Your task to perform on an android device: Open Chrome and go to the settings page Image 0: 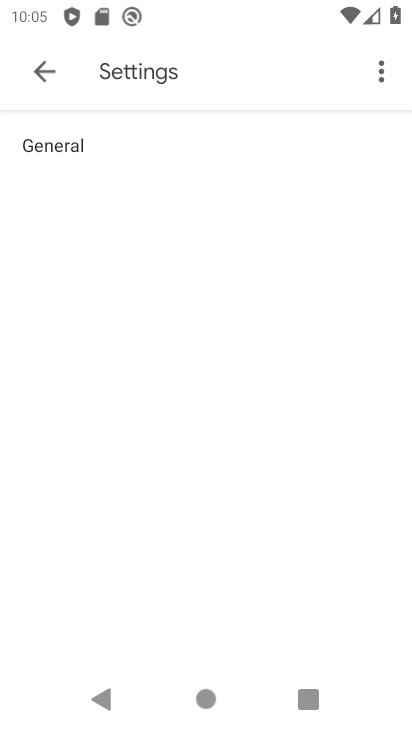
Step 0: press back button
Your task to perform on an android device: Open Chrome and go to the settings page Image 1: 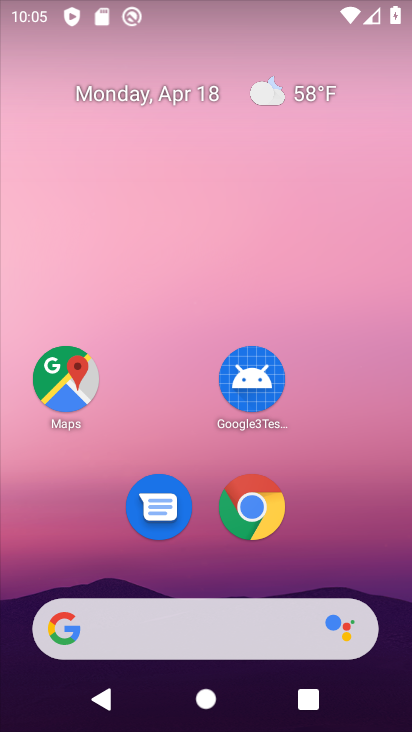
Step 1: click (261, 511)
Your task to perform on an android device: Open Chrome and go to the settings page Image 2: 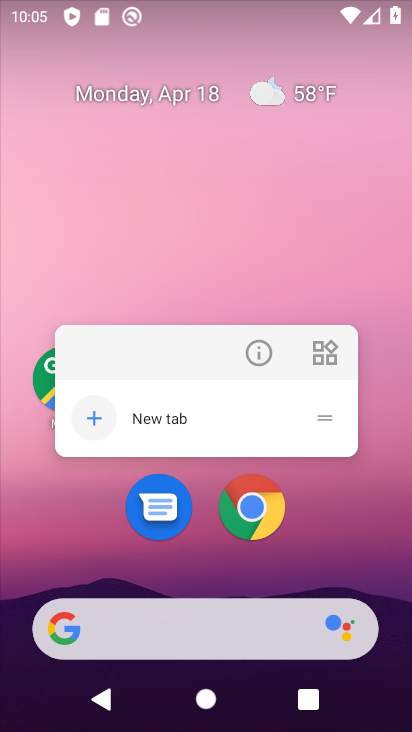
Step 2: click (267, 519)
Your task to perform on an android device: Open Chrome and go to the settings page Image 3: 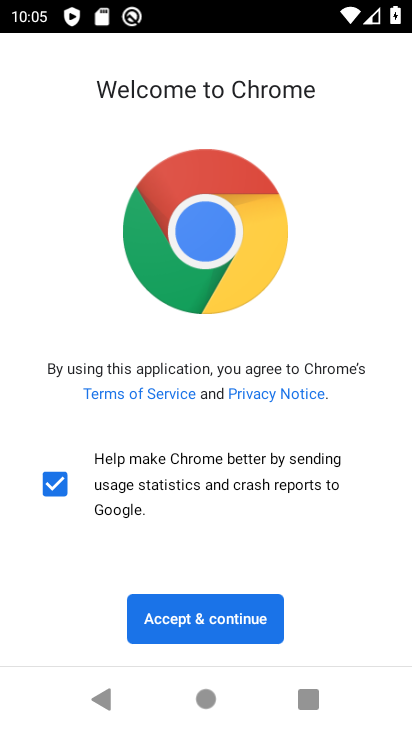
Step 3: click (208, 635)
Your task to perform on an android device: Open Chrome and go to the settings page Image 4: 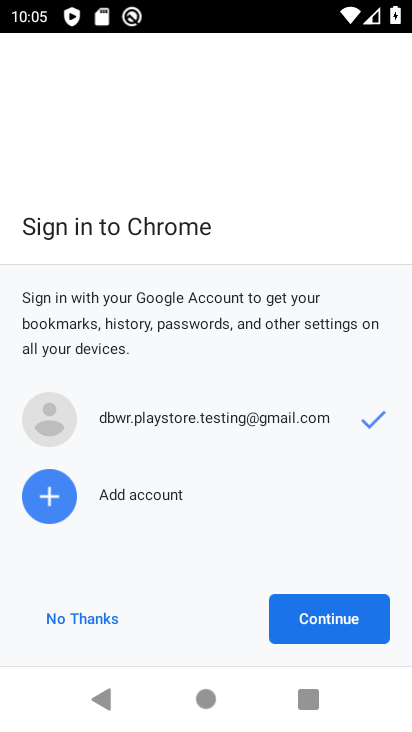
Step 4: click (316, 620)
Your task to perform on an android device: Open Chrome and go to the settings page Image 5: 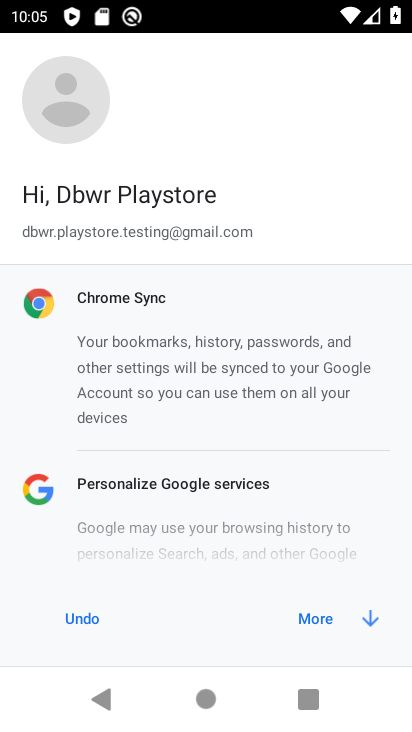
Step 5: click (326, 626)
Your task to perform on an android device: Open Chrome and go to the settings page Image 6: 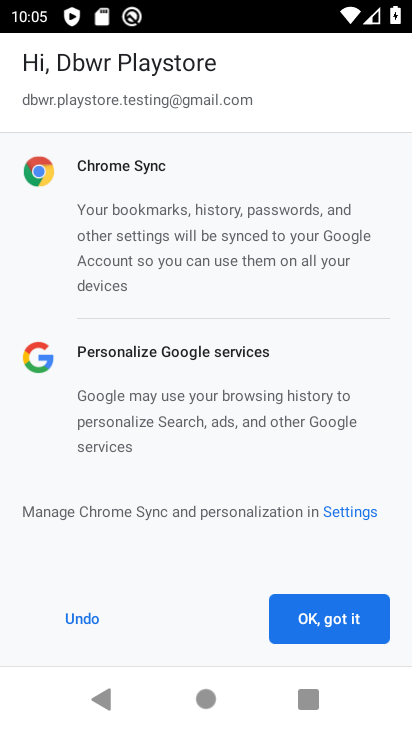
Step 6: click (342, 630)
Your task to perform on an android device: Open Chrome and go to the settings page Image 7: 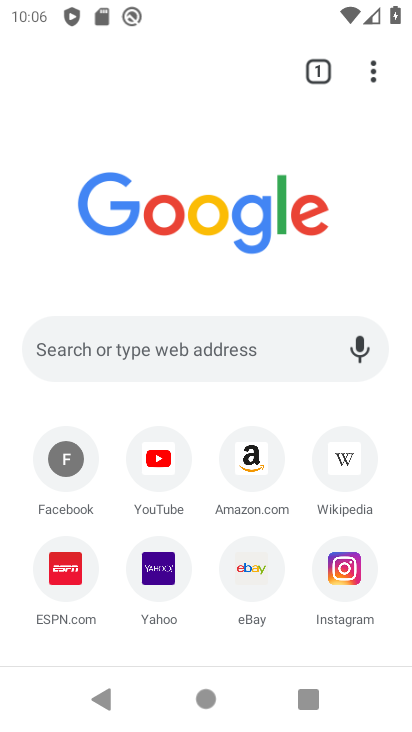
Step 7: click (379, 71)
Your task to perform on an android device: Open Chrome and go to the settings page Image 8: 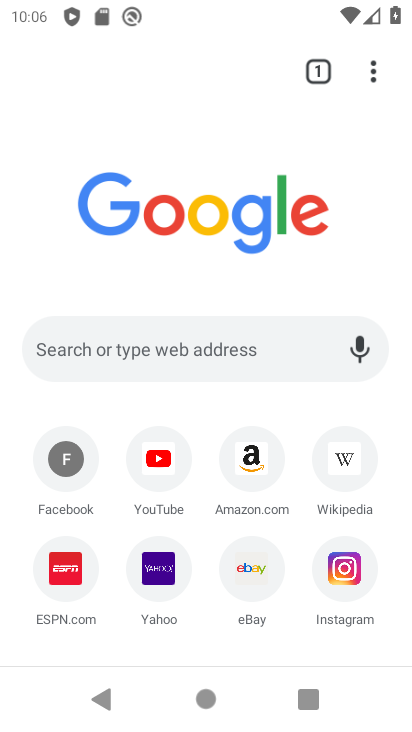
Step 8: task complete